Your task to perform on an android device: Open Android settings Image 0: 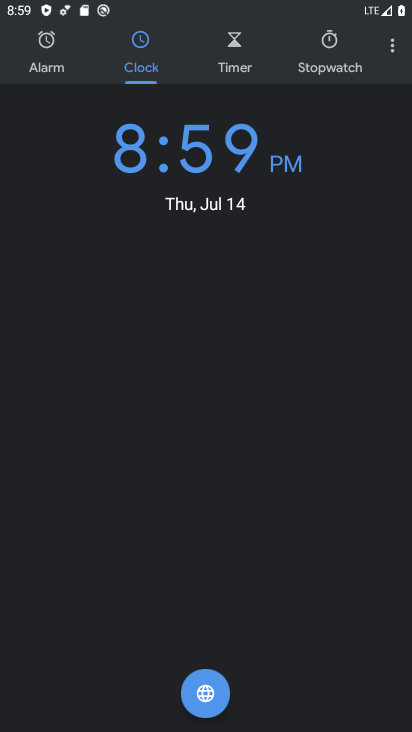
Step 0: press home button
Your task to perform on an android device: Open Android settings Image 1: 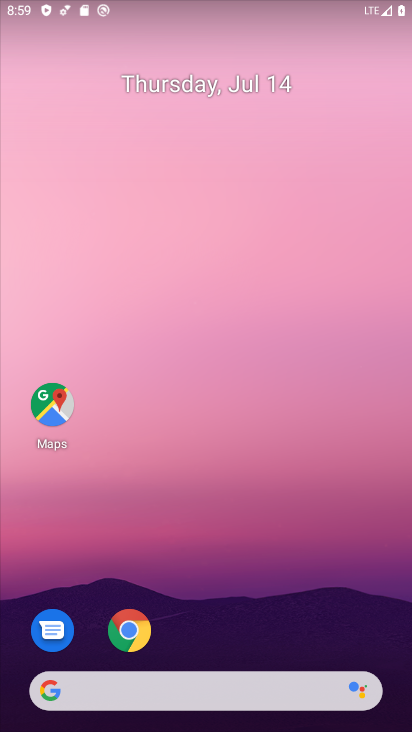
Step 1: drag from (214, 658) to (11, 4)
Your task to perform on an android device: Open Android settings Image 2: 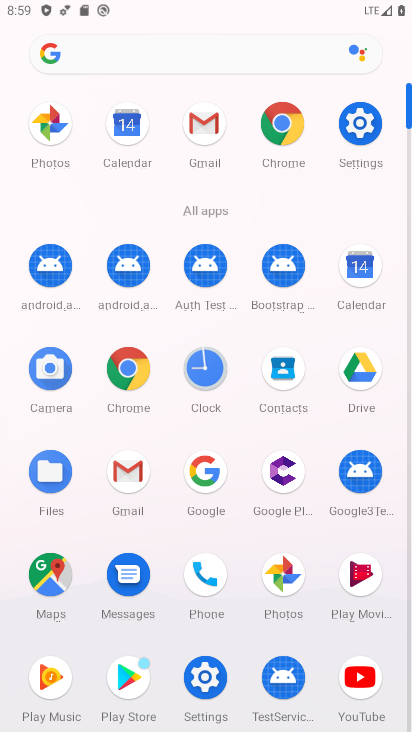
Step 2: click (348, 164)
Your task to perform on an android device: Open Android settings Image 3: 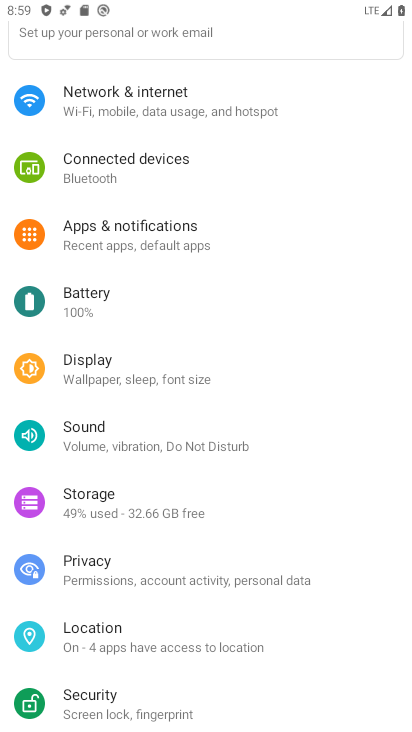
Step 3: click (184, 97)
Your task to perform on an android device: Open Android settings Image 4: 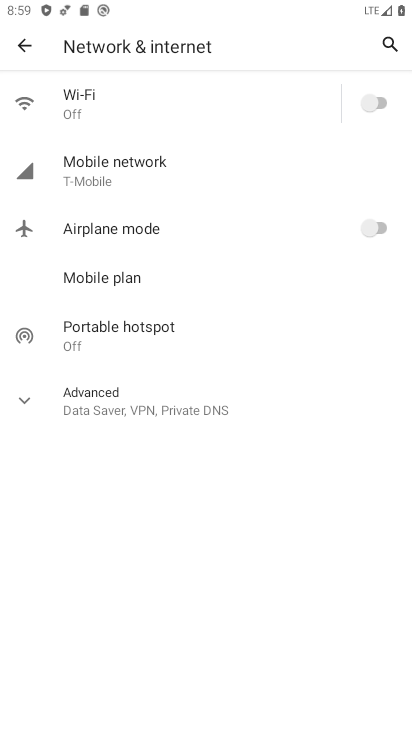
Step 4: task complete